Your task to perform on an android device: turn on notifications settings in the gmail app Image 0: 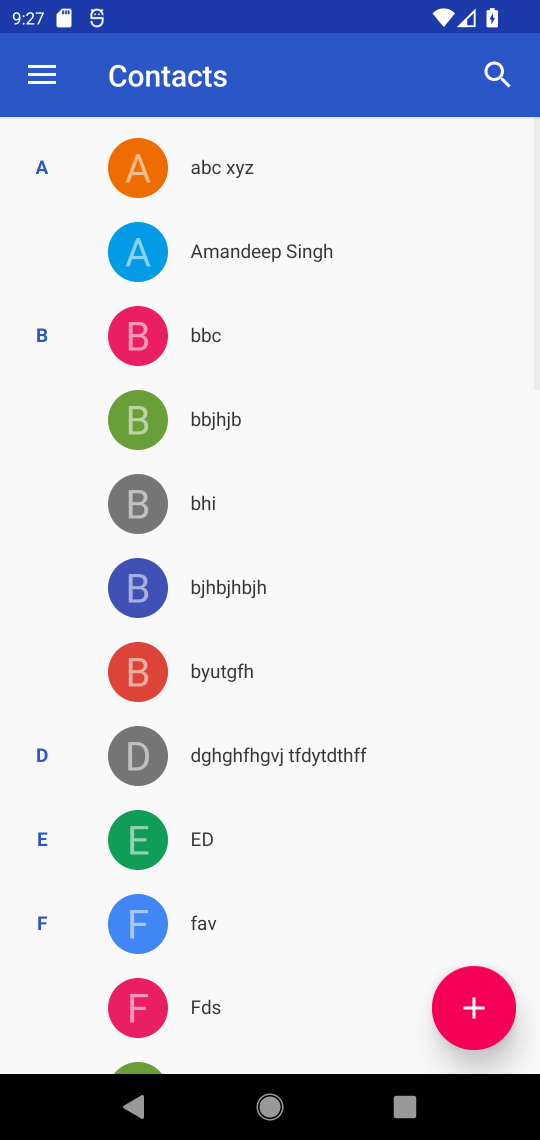
Step 0: press home button
Your task to perform on an android device: turn on notifications settings in the gmail app Image 1: 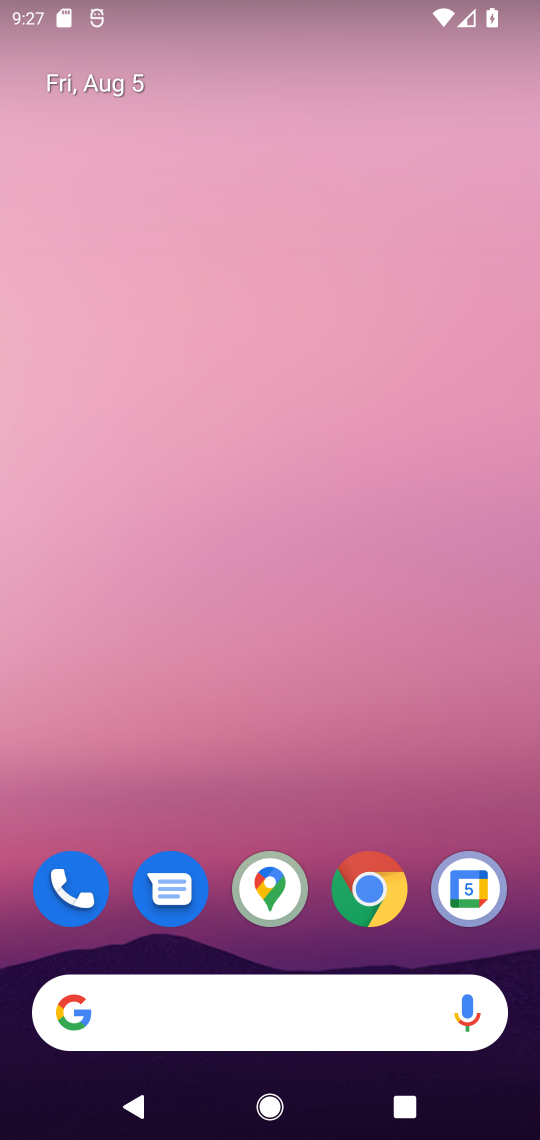
Step 1: drag from (257, 965) to (235, 416)
Your task to perform on an android device: turn on notifications settings in the gmail app Image 2: 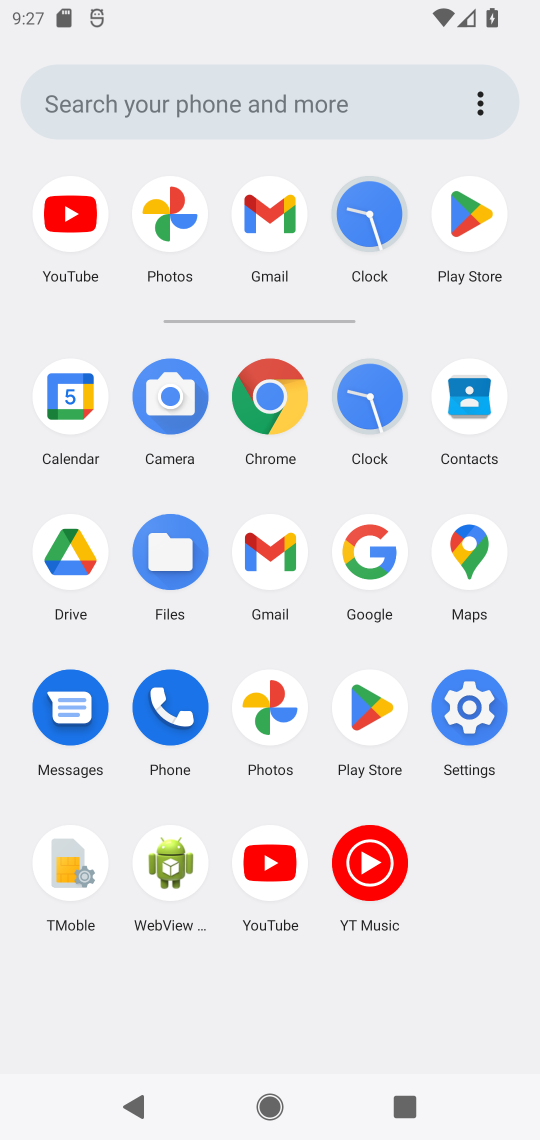
Step 2: click (259, 555)
Your task to perform on an android device: turn on notifications settings in the gmail app Image 3: 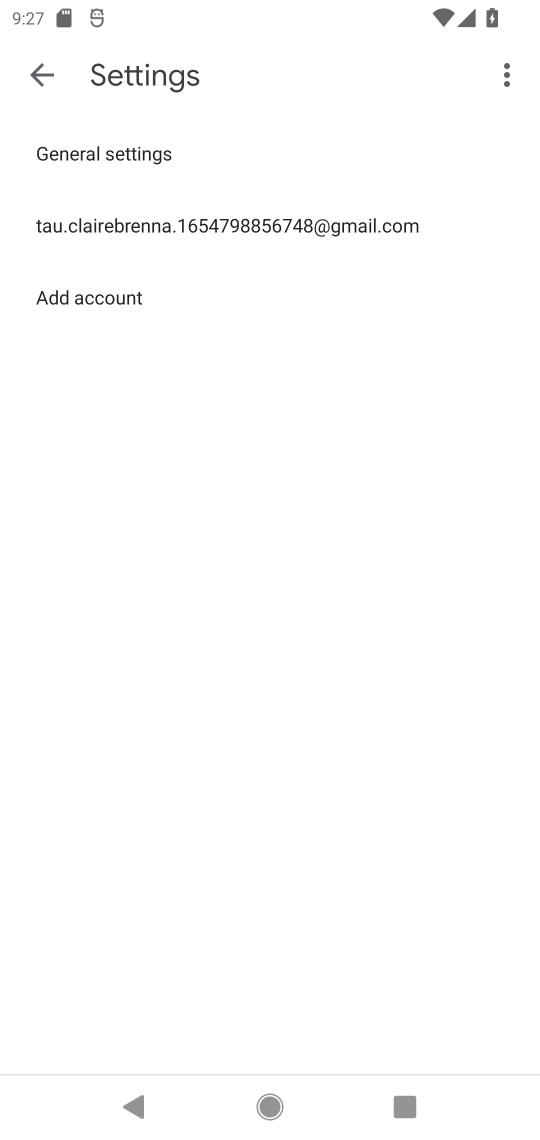
Step 3: click (110, 218)
Your task to perform on an android device: turn on notifications settings in the gmail app Image 4: 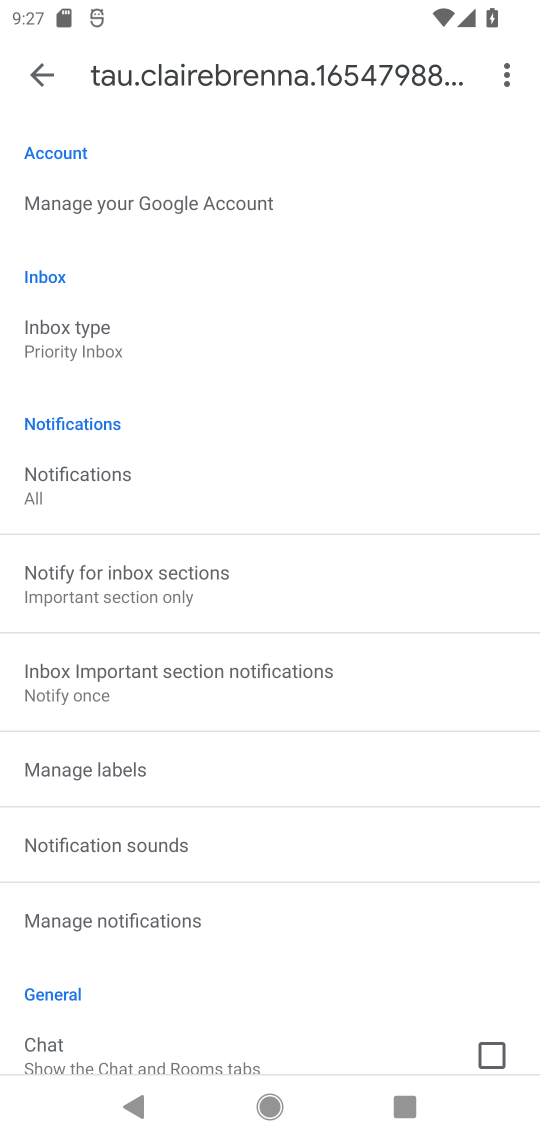
Step 4: click (101, 499)
Your task to perform on an android device: turn on notifications settings in the gmail app Image 5: 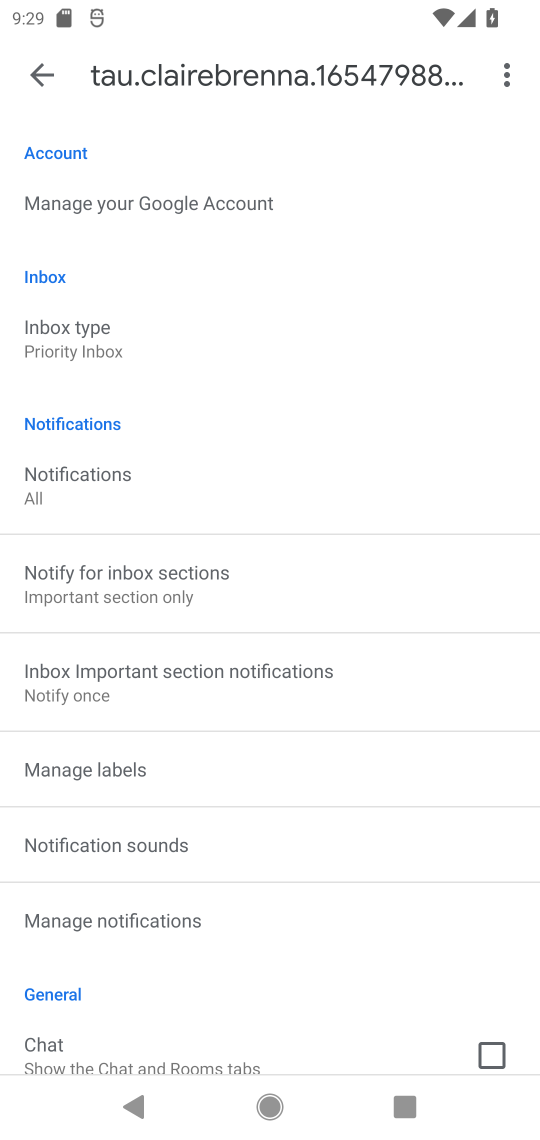
Step 5: task complete